Your task to perform on an android device: Check the weather Image 0: 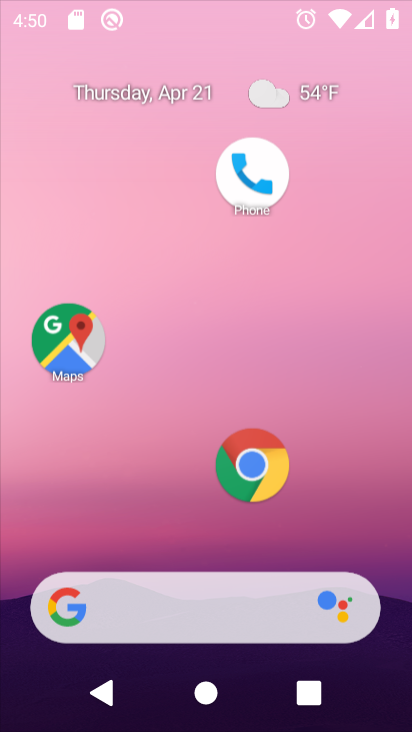
Step 0: click (231, 61)
Your task to perform on an android device: Check the weather Image 1: 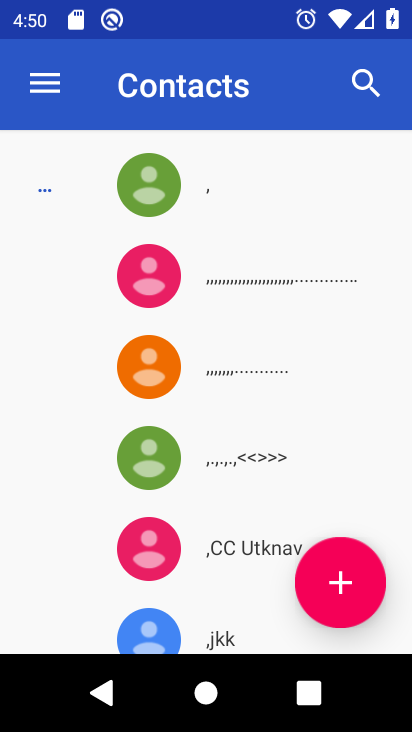
Step 1: press home button
Your task to perform on an android device: Check the weather Image 2: 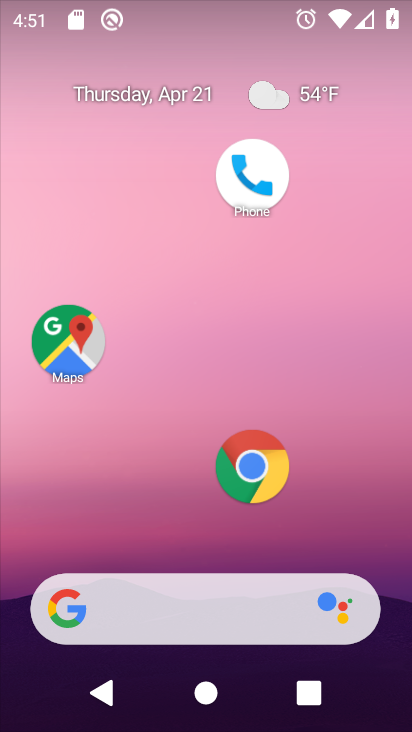
Step 2: drag from (163, 530) to (215, 68)
Your task to perform on an android device: Check the weather Image 3: 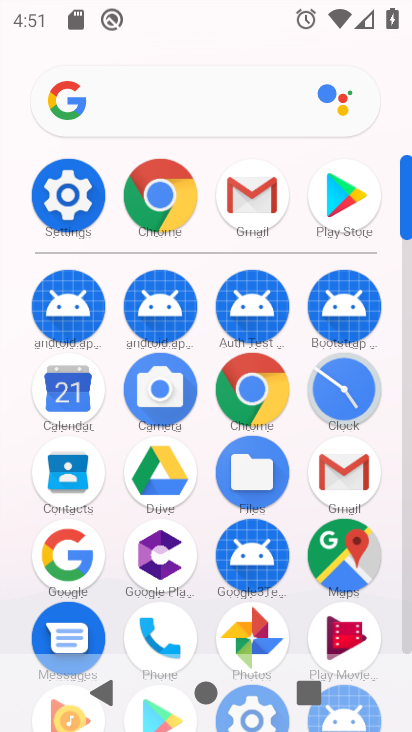
Step 3: click (74, 547)
Your task to perform on an android device: Check the weather Image 4: 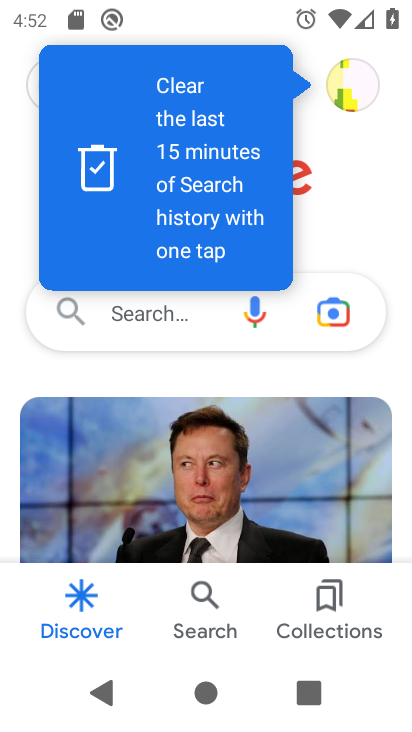
Step 4: click (192, 313)
Your task to perform on an android device: Check the weather Image 5: 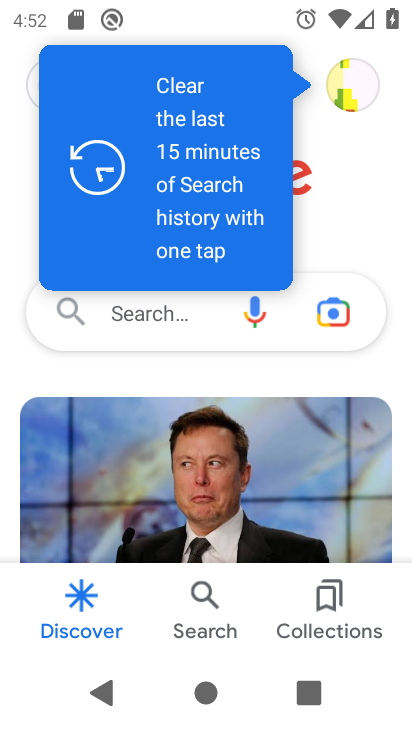
Step 5: click (155, 299)
Your task to perform on an android device: Check the weather Image 6: 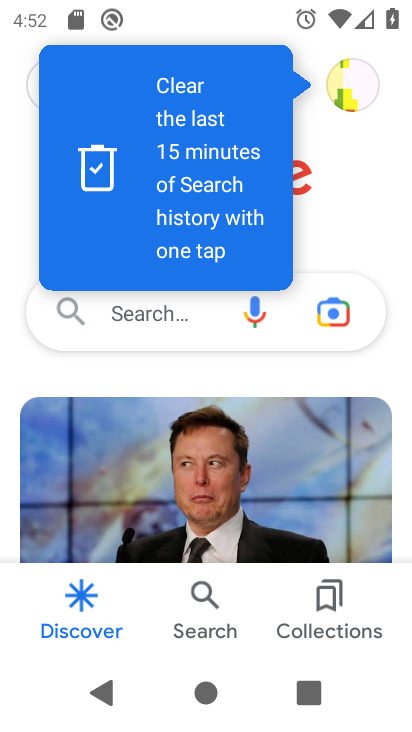
Step 6: click (384, 182)
Your task to perform on an android device: Check the weather Image 7: 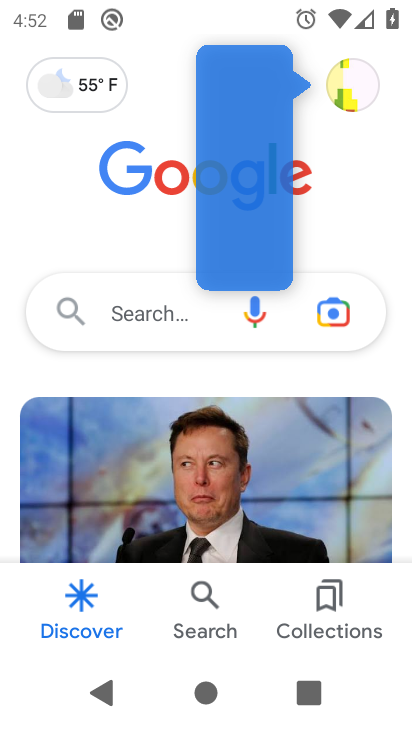
Step 7: click (154, 311)
Your task to perform on an android device: Check the weather Image 8: 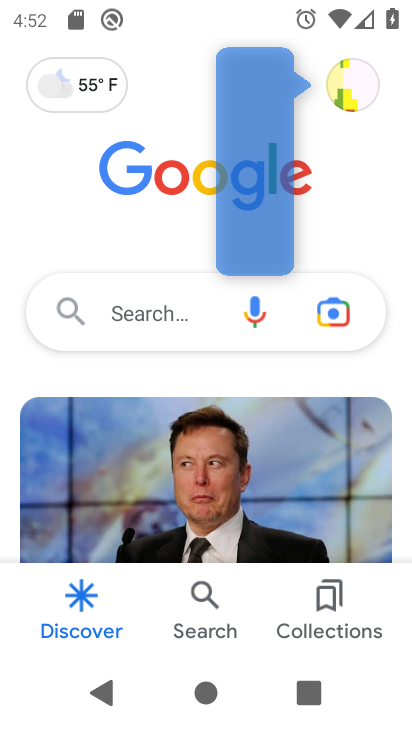
Step 8: click (153, 311)
Your task to perform on an android device: Check the weather Image 9: 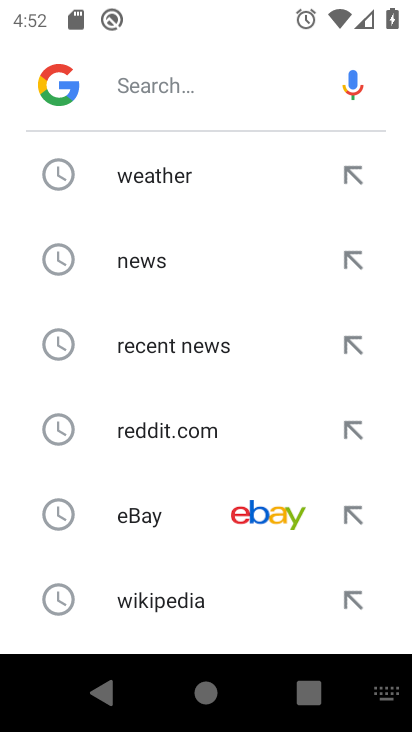
Step 9: click (171, 182)
Your task to perform on an android device: Check the weather Image 10: 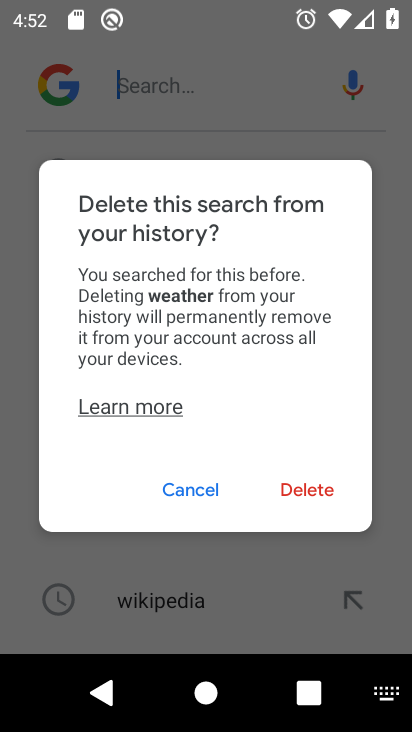
Step 10: click (203, 491)
Your task to perform on an android device: Check the weather Image 11: 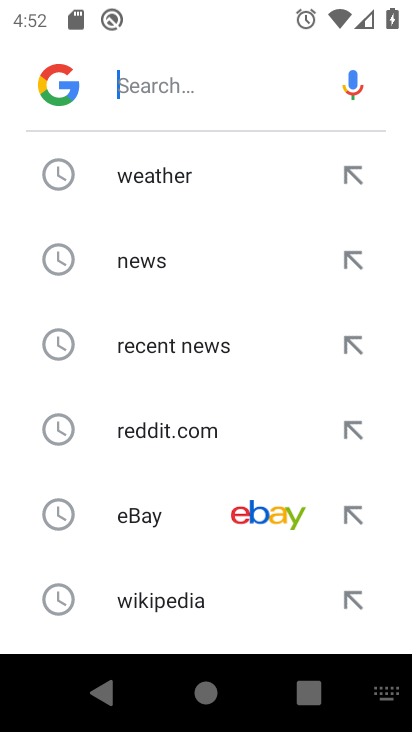
Step 11: click (201, 148)
Your task to perform on an android device: Check the weather Image 12: 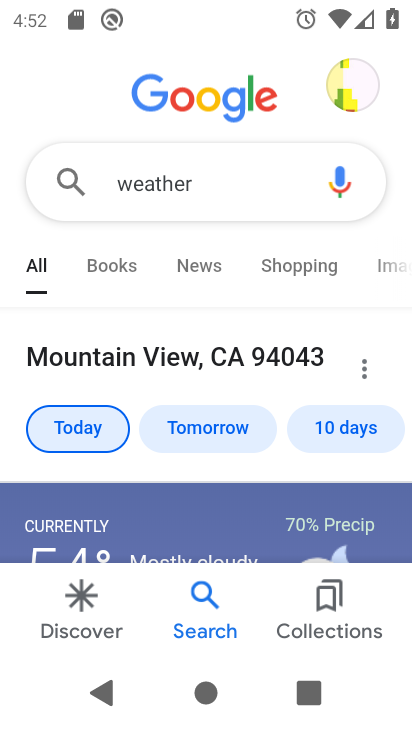
Step 12: task complete